Your task to perform on an android device: change alarm snooze length Image 0: 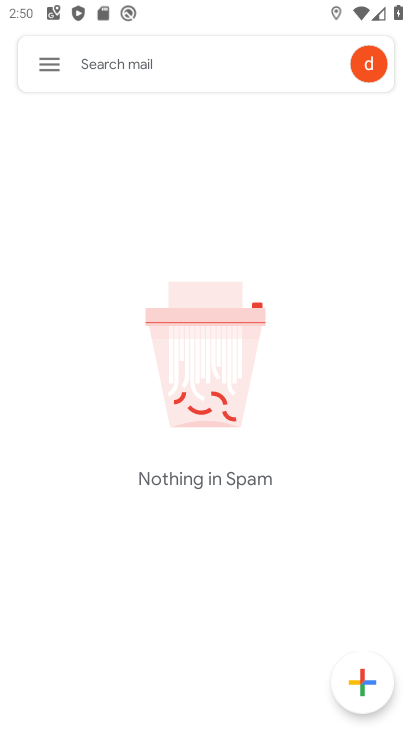
Step 0: press home button
Your task to perform on an android device: change alarm snooze length Image 1: 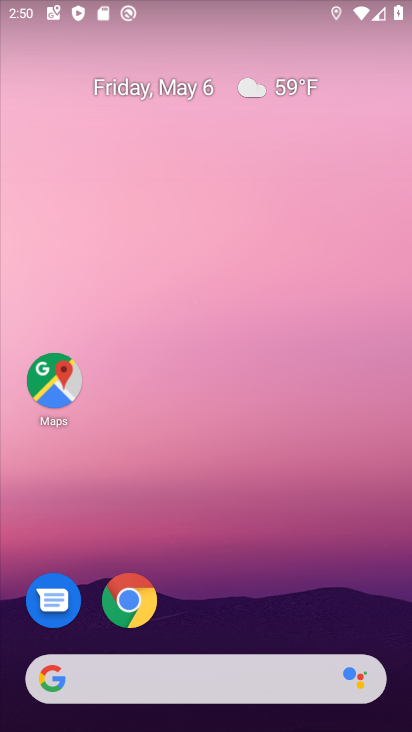
Step 1: drag from (252, 555) to (306, 44)
Your task to perform on an android device: change alarm snooze length Image 2: 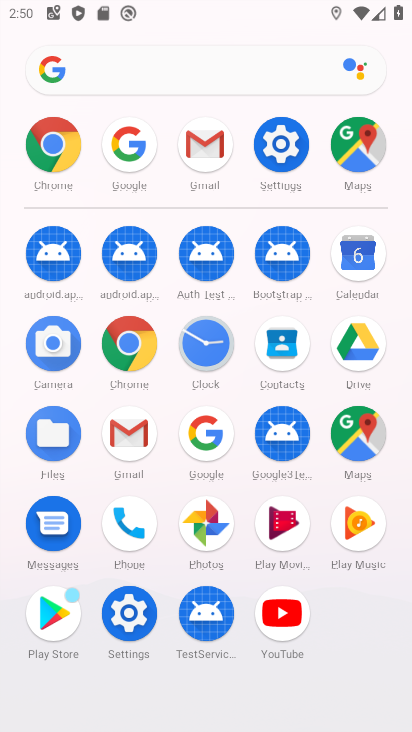
Step 2: click (198, 354)
Your task to perform on an android device: change alarm snooze length Image 3: 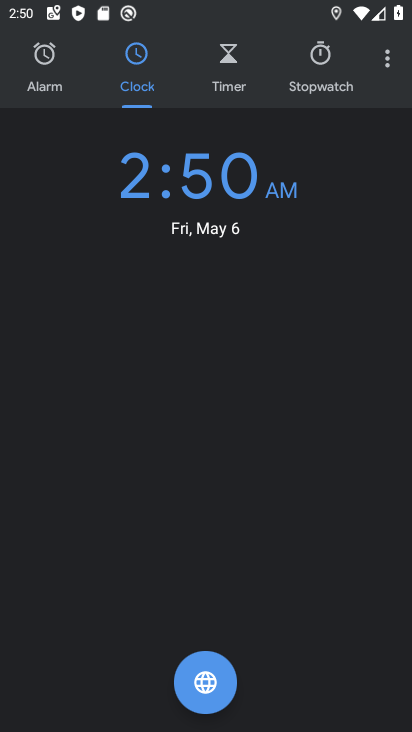
Step 3: click (380, 52)
Your task to perform on an android device: change alarm snooze length Image 4: 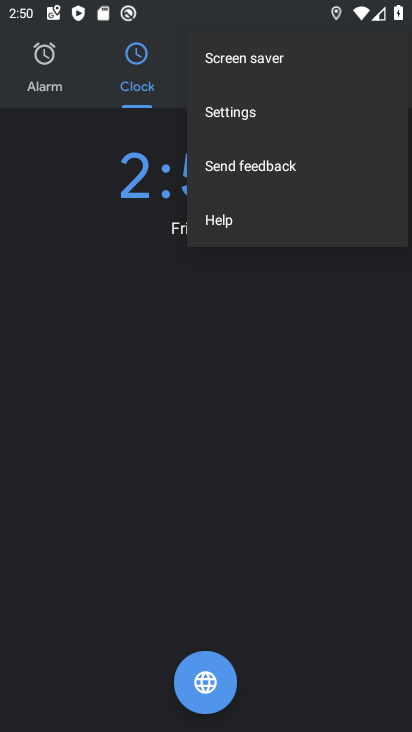
Step 4: click (252, 110)
Your task to perform on an android device: change alarm snooze length Image 5: 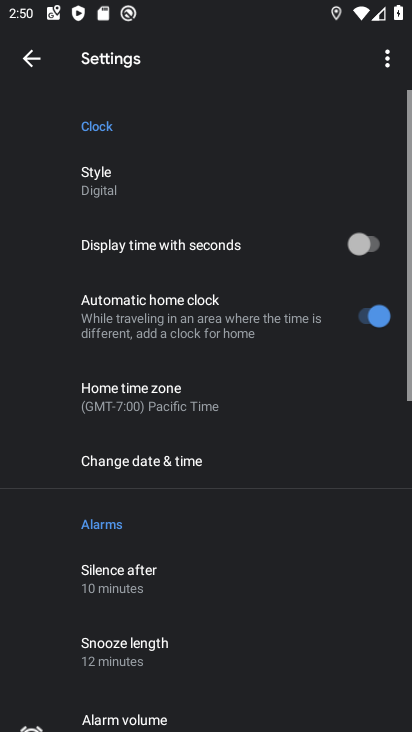
Step 5: drag from (186, 510) to (203, 265)
Your task to perform on an android device: change alarm snooze length Image 6: 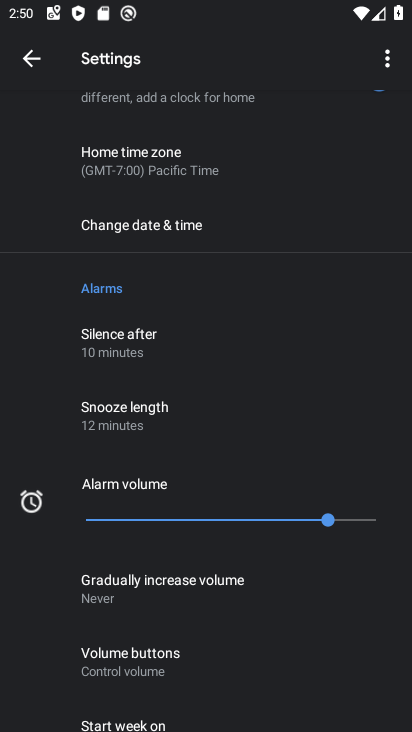
Step 6: click (159, 421)
Your task to perform on an android device: change alarm snooze length Image 7: 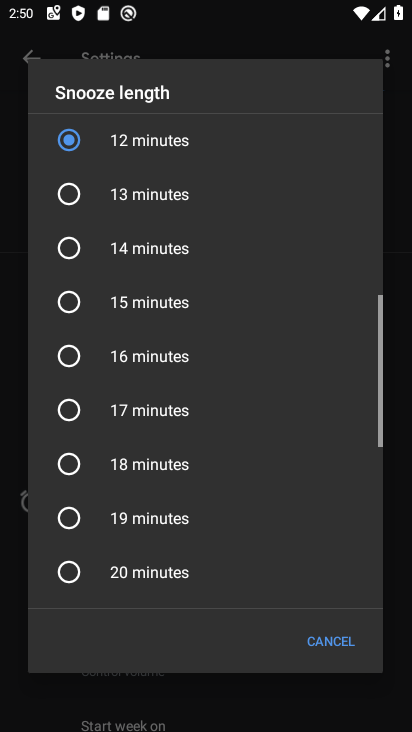
Step 7: click (67, 359)
Your task to perform on an android device: change alarm snooze length Image 8: 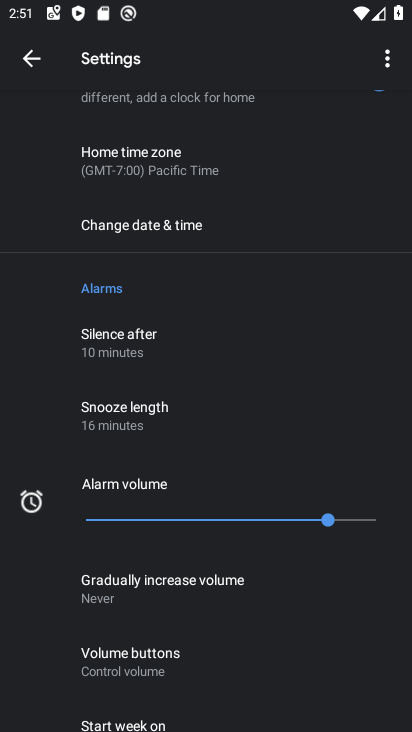
Step 8: task complete